Your task to perform on an android device: Open notification settings Image 0: 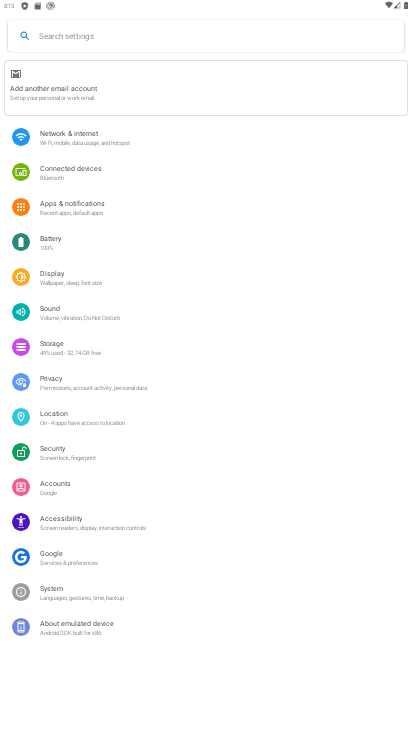
Step 0: click (62, 214)
Your task to perform on an android device: Open notification settings Image 1: 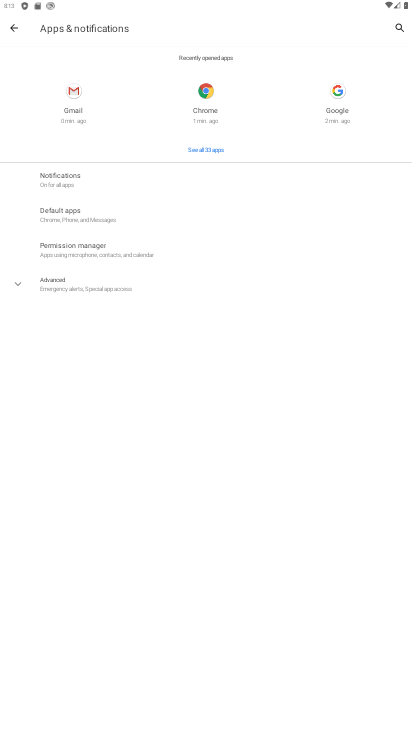
Step 1: click (117, 184)
Your task to perform on an android device: Open notification settings Image 2: 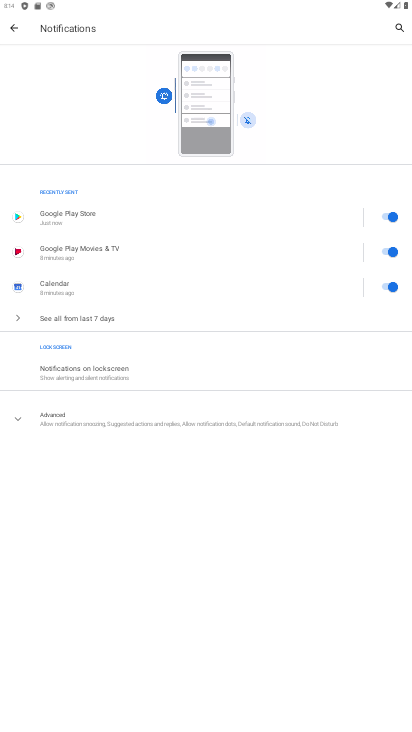
Step 2: task complete